Your task to perform on an android device: toggle show notifications on the lock screen Image 0: 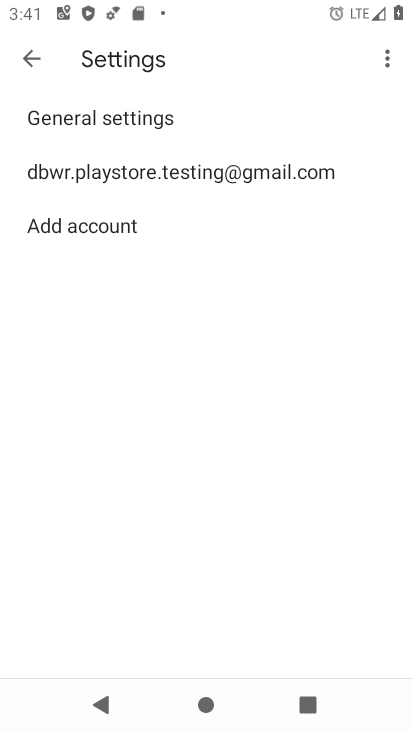
Step 0: press back button
Your task to perform on an android device: toggle show notifications on the lock screen Image 1: 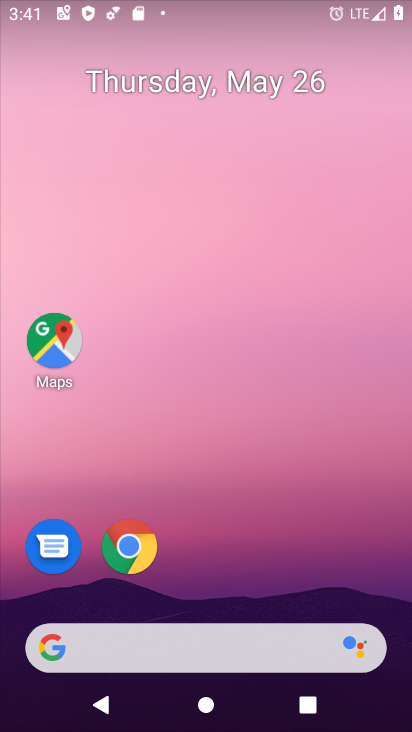
Step 1: drag from (240, 568) to (251, 123)
Your task to perform on an android device: toggle show notifications on the lock screen Image 2: 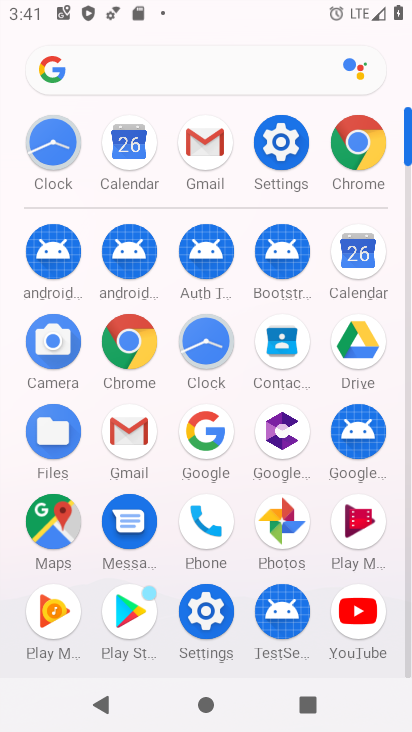
Step 2: click (291, 154)
Your task to perform on an android device: toggle show notifications on the lock screen Image 3: 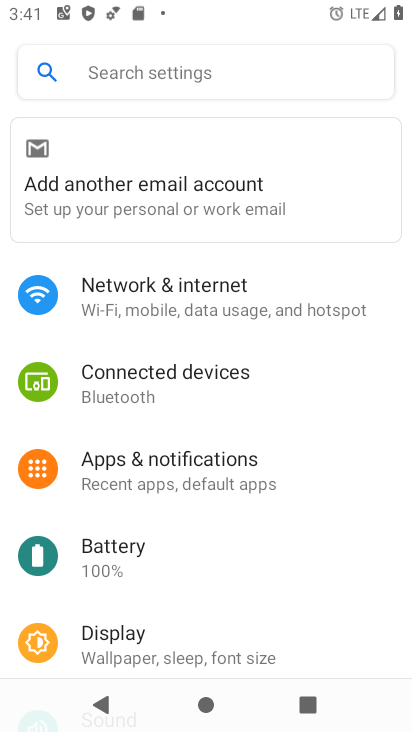
Step 3: click (184, 464)
Your task to perform on an android device: toggle show notifications on the lock screen Image 4: 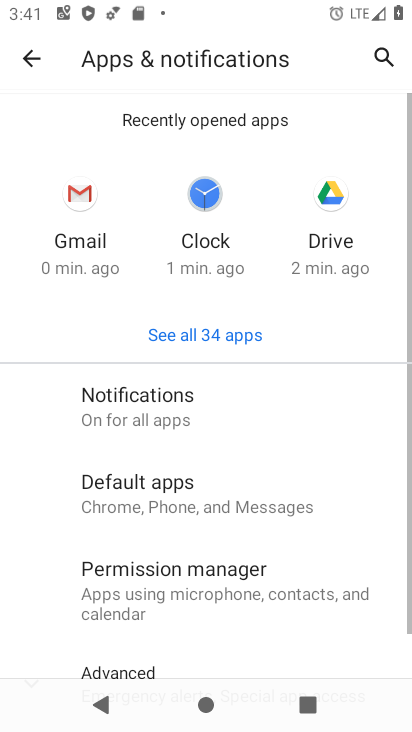
Step 4: drag from (176, 536) to (232, 214)
Your task to perform on an android device: toggle show notifications on the lock screen Image 5: 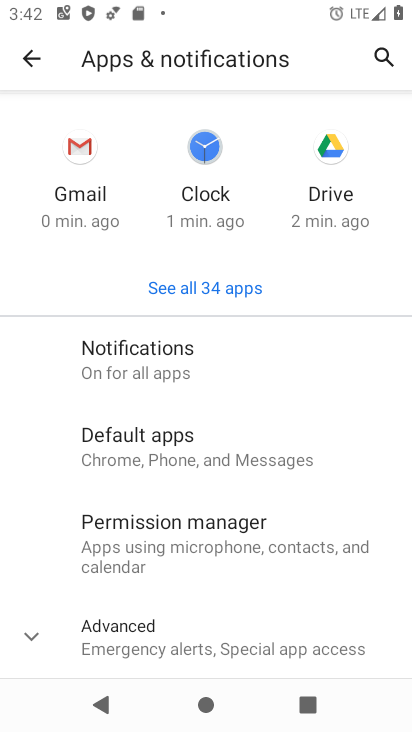
Step 5: click (173, 359)
Your task to perform on an android device: toggle show notifications on the lock screen Image 6: 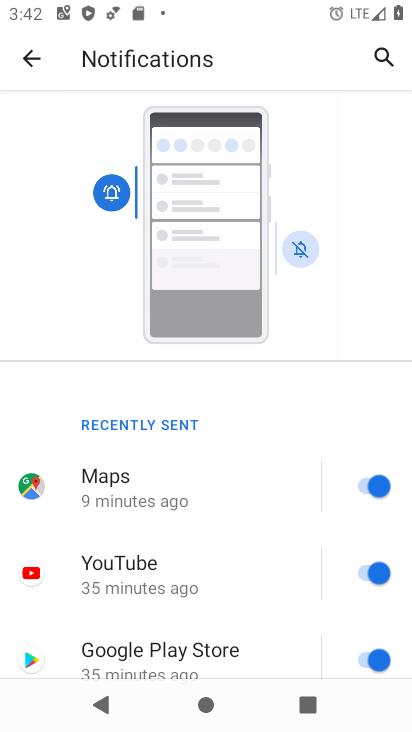
Step 6: drag from (178, 650) to (250, 127)
Your task to perform on an android device: toggle show notifications on the lock screen Image 7: 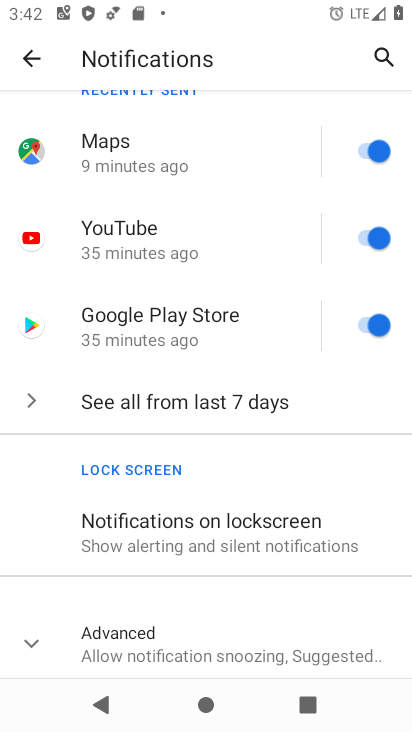
Step 7: click (173, 519)
Your task to perform on an android device: toggle show notifications on the lock screen Image 8: 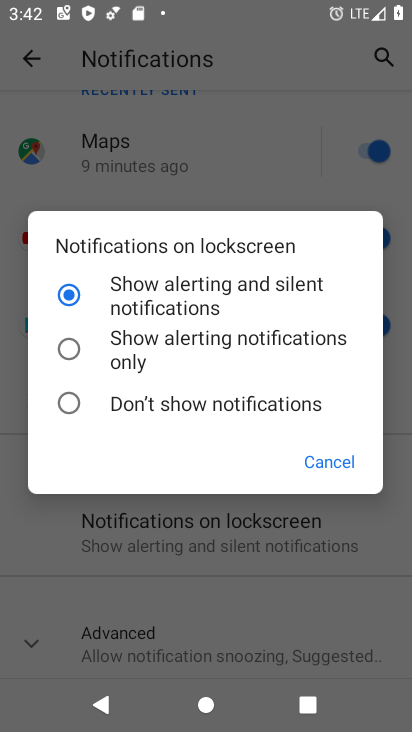
Step 8: click (63, 294)
Your task to perform on an android device: toggle show notifications on the lock screen Image 9: 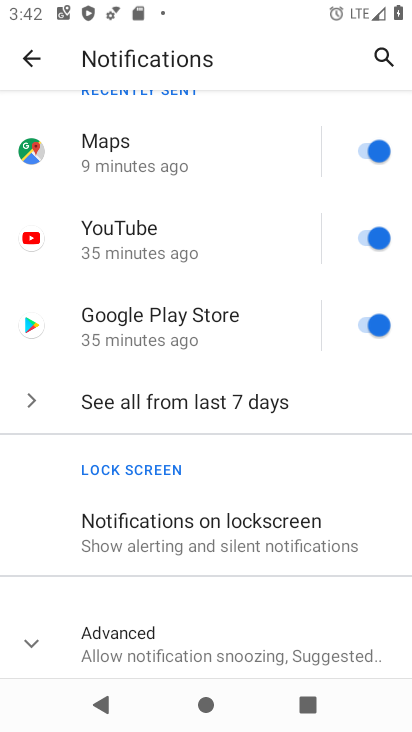
Step 9: task complete